Your task to perform on an android device: What's the weather going to be this weekend? Image 0: 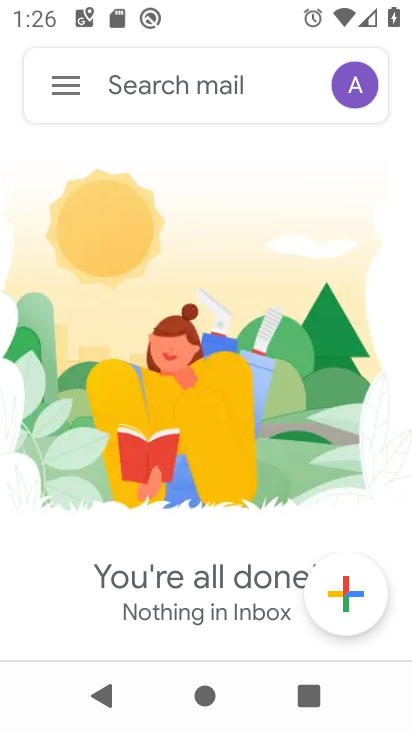
Step 0: press home button
Your task to perform on an android device: What's the weather going to be this weekend? Image 1: 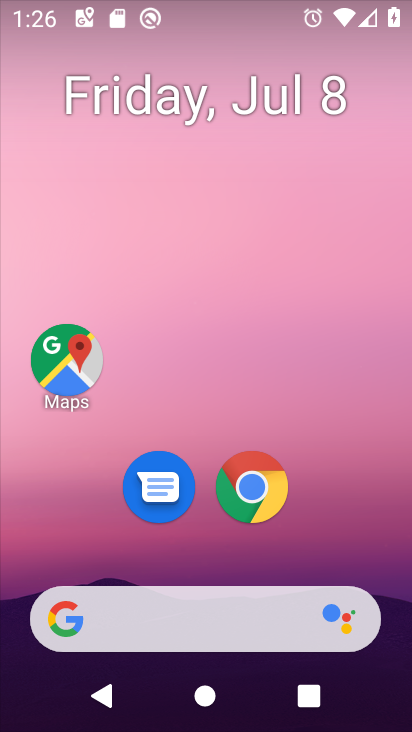
Step 1: click (246, 612)
Your task to perform on an android device: What's the weather going to be this weekend? Image 2: 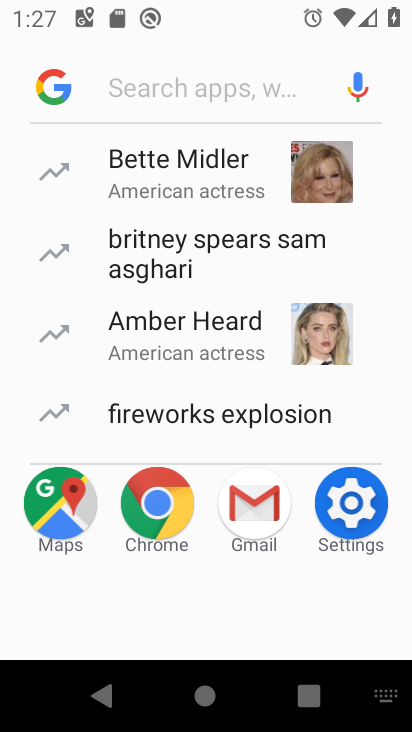
Step 2: type "weather "
Your task to perform on an android device: What's the weather going to be this weekend? Image 3: 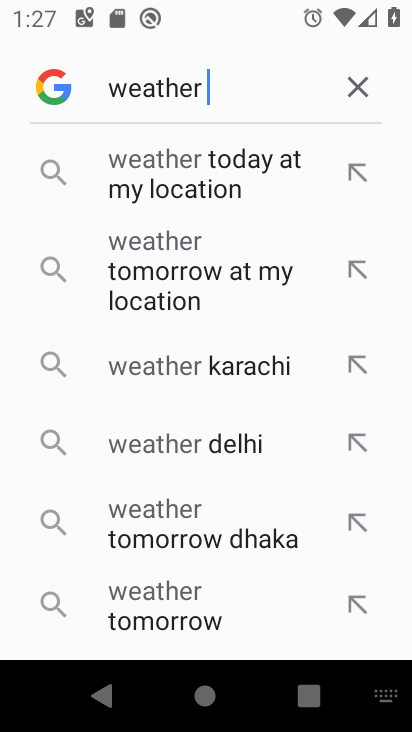
Step 3: drag from (294, 576) to (272, 394)
Your task to perform on an android device: What's the weather going to be this weekend? Image 4: 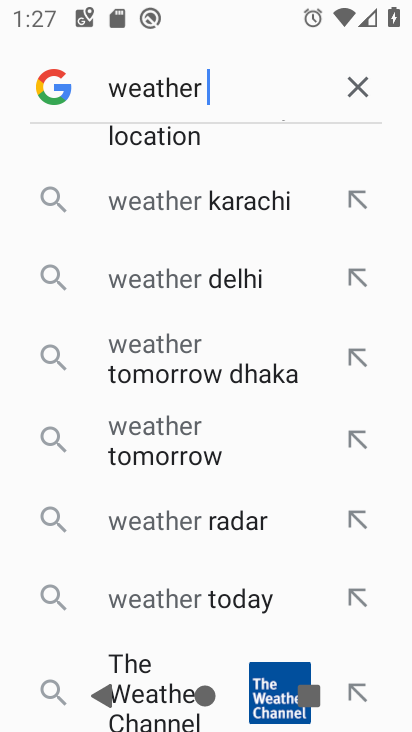
Step 4: drag from (280, 558) to (290, 352)
Your task to perform on an android device: What's the weather going to be this weekend? Image 5: 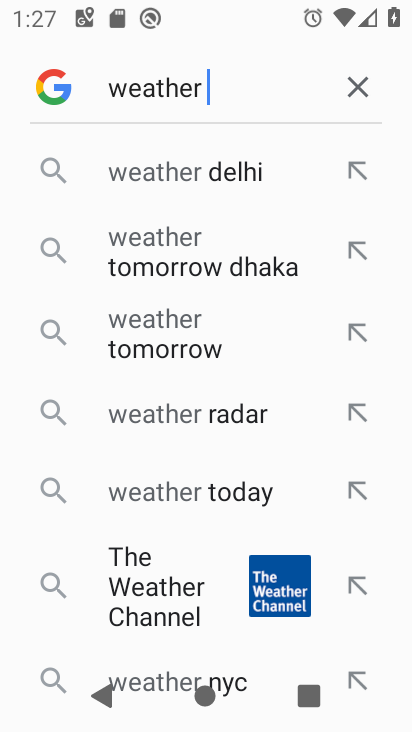
Step 5: drag from (299, 352) to (293, 488)
Your task to perform on an android device: What's the weather going to be this weekend? Image 6: 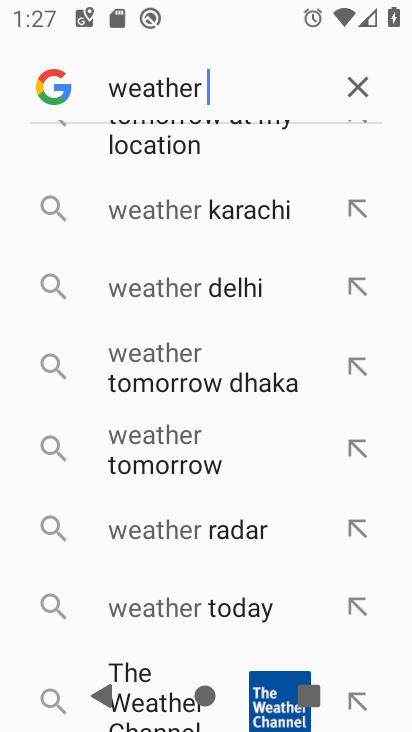
Step 6: drag from (301, 262) to (302, 487)
Your task to perform on an android device: What's the weather going to be this weekend? Image 7: 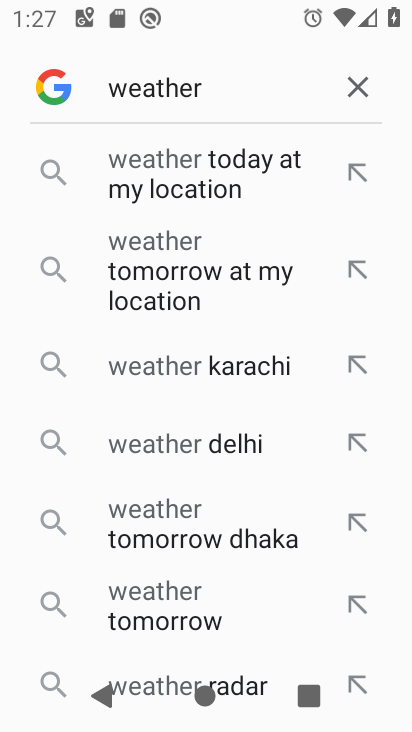
Step 7: drag from (276, 219) to (263, 370)
Your task to perform on an android device: What's the weather going to be this weekend? Image 8: 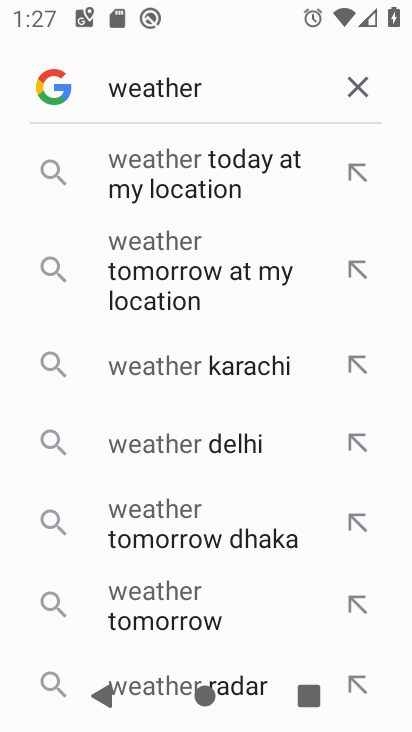
Step 8: click (231, 189)
Your task to perform on an android device: What's the weather going to be this weekend? Image 9: 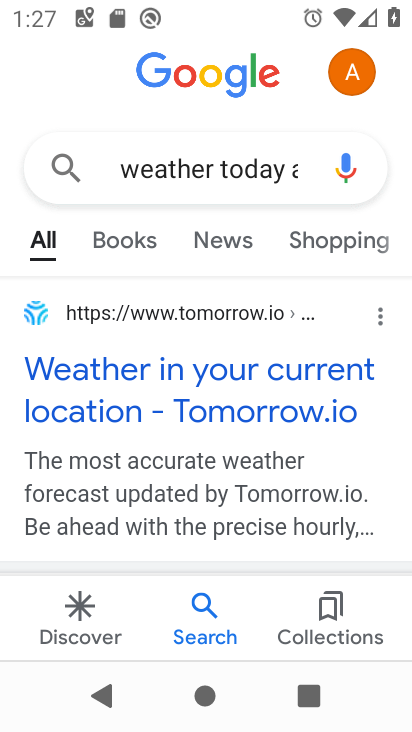
Step 9: click (254, 373)
Your task to perform on an android device: What's the weather going to be this weekend? Image 10: 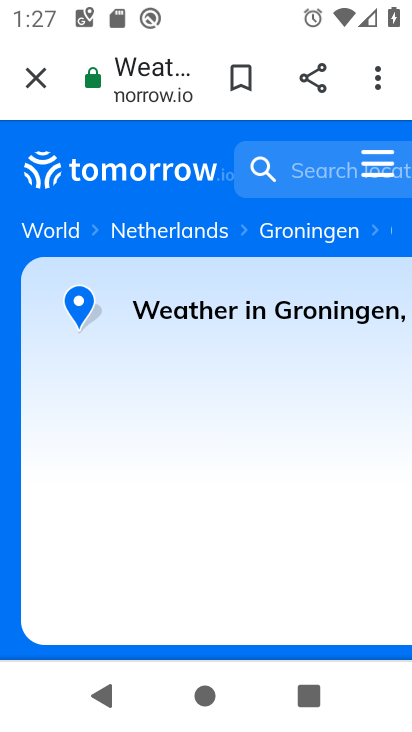
Step 10: task complete